Your task to perform on an android device: change the clock display to digital Image 0: 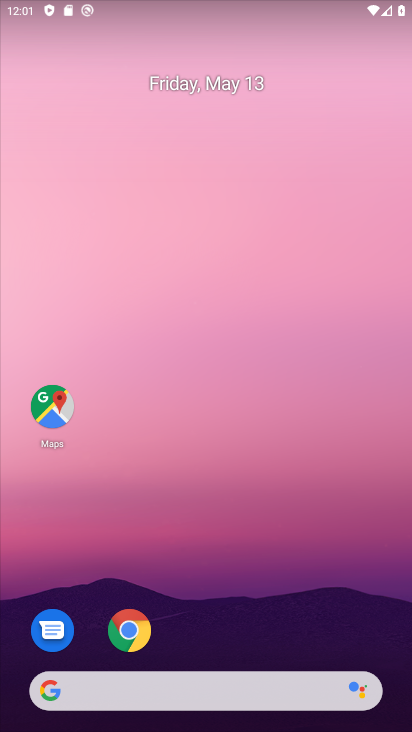
Step 0: drag from (265, 633) to (286, 252)
Your task to perform on an android device: change the clock display to digital Image 1: 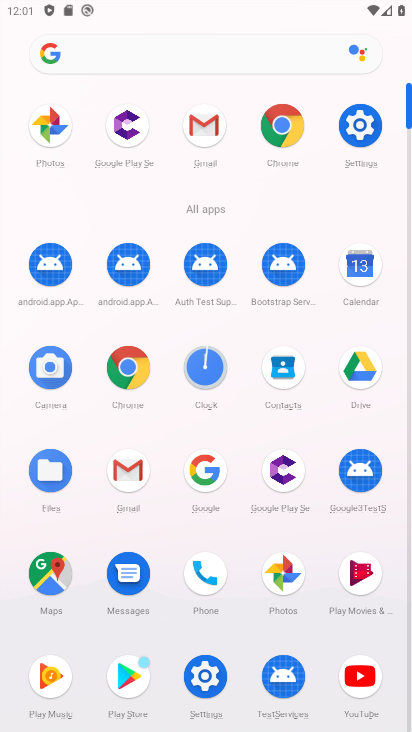
Step 1: click (204, 386)
Your task to perform on an android device: change the clock display to digital Image 2: 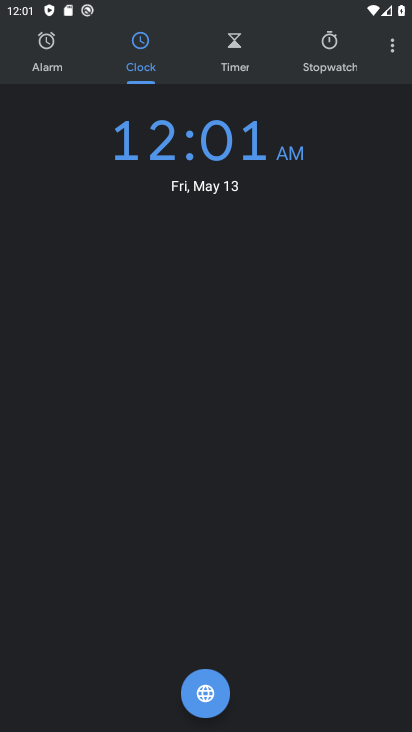
Step 2: task complete